Your task to perform on an android device: delete the emails in spam in the gmail app Image 0: 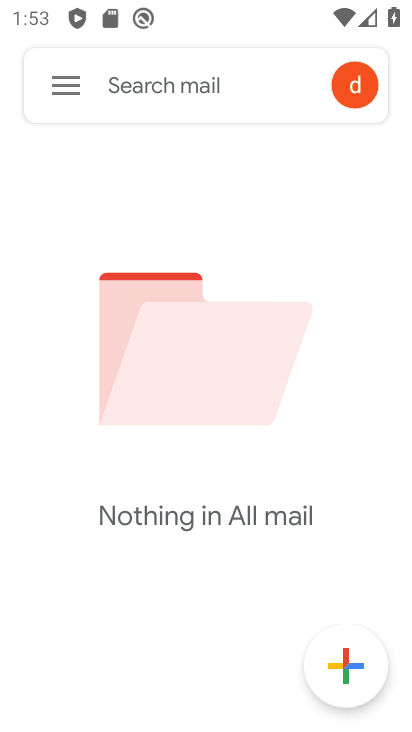
Step 0: press home button
Your task to perform on an android device: delete the emails in spam in the gmail app Image 1: 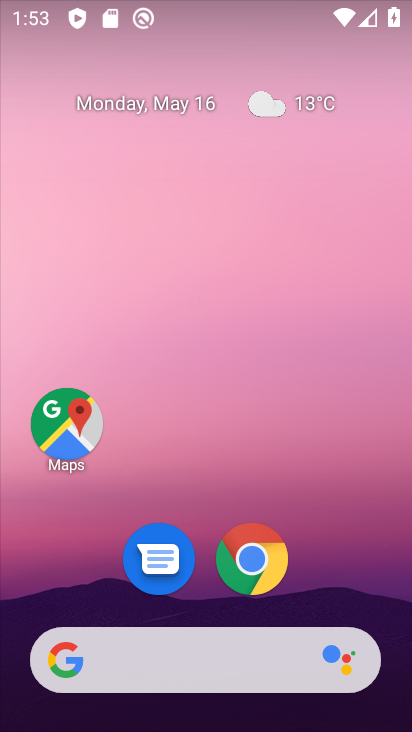
Step 1: drag from (192, 605) to (208, 137)
Your task to perform on an android device: delete the emails in spam in the gmail app Image 2: 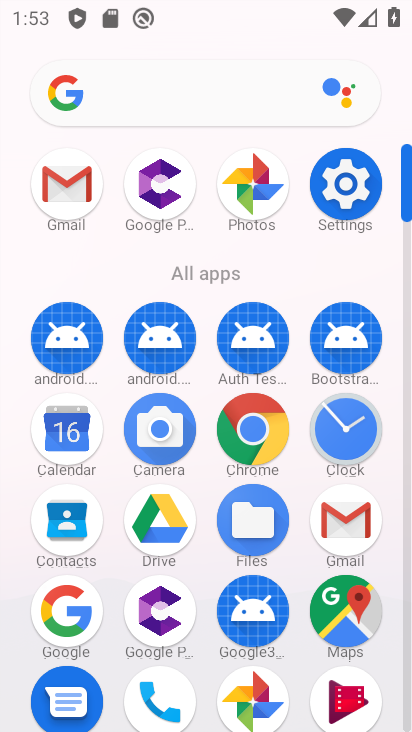
Step 2: click (66, 192)
Your task to perform on an android device: delete the emails in spam in the gmail app Image 3: 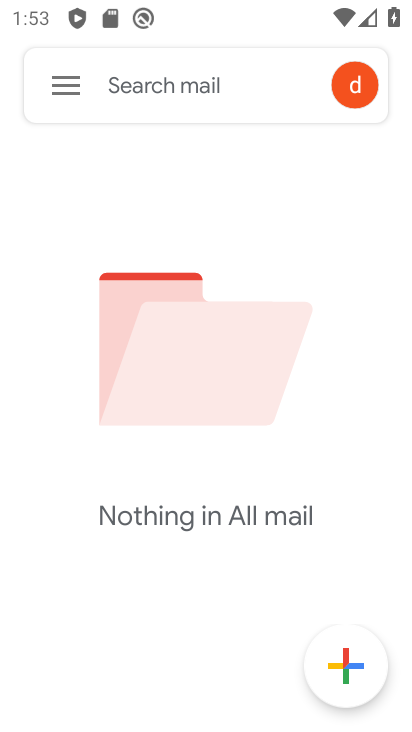
Step 3: click (65, 89)
Your task to perform on an android device: delete the emails in spam in the gmail app Image 4: 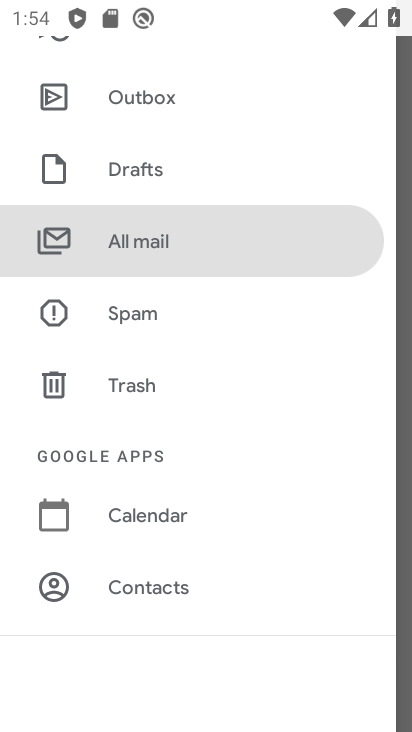
Step 4: click (169, 249)
Your task to perform on an android device: delete the emails in spam in the gmail app Image 5: 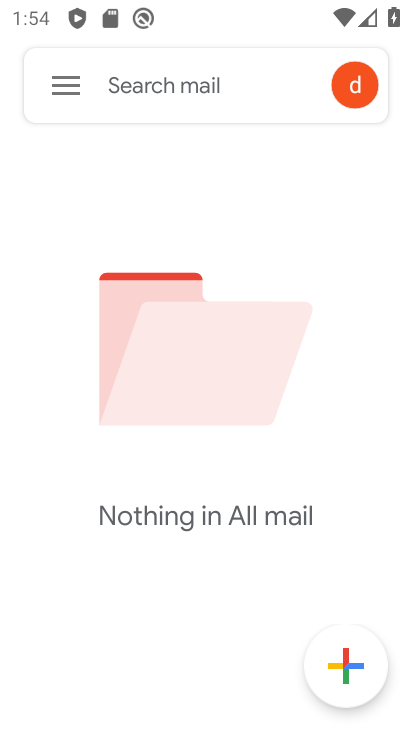
Step 5: task complete